Your task to perform on an android device: Open Yahoo.com Image 0: 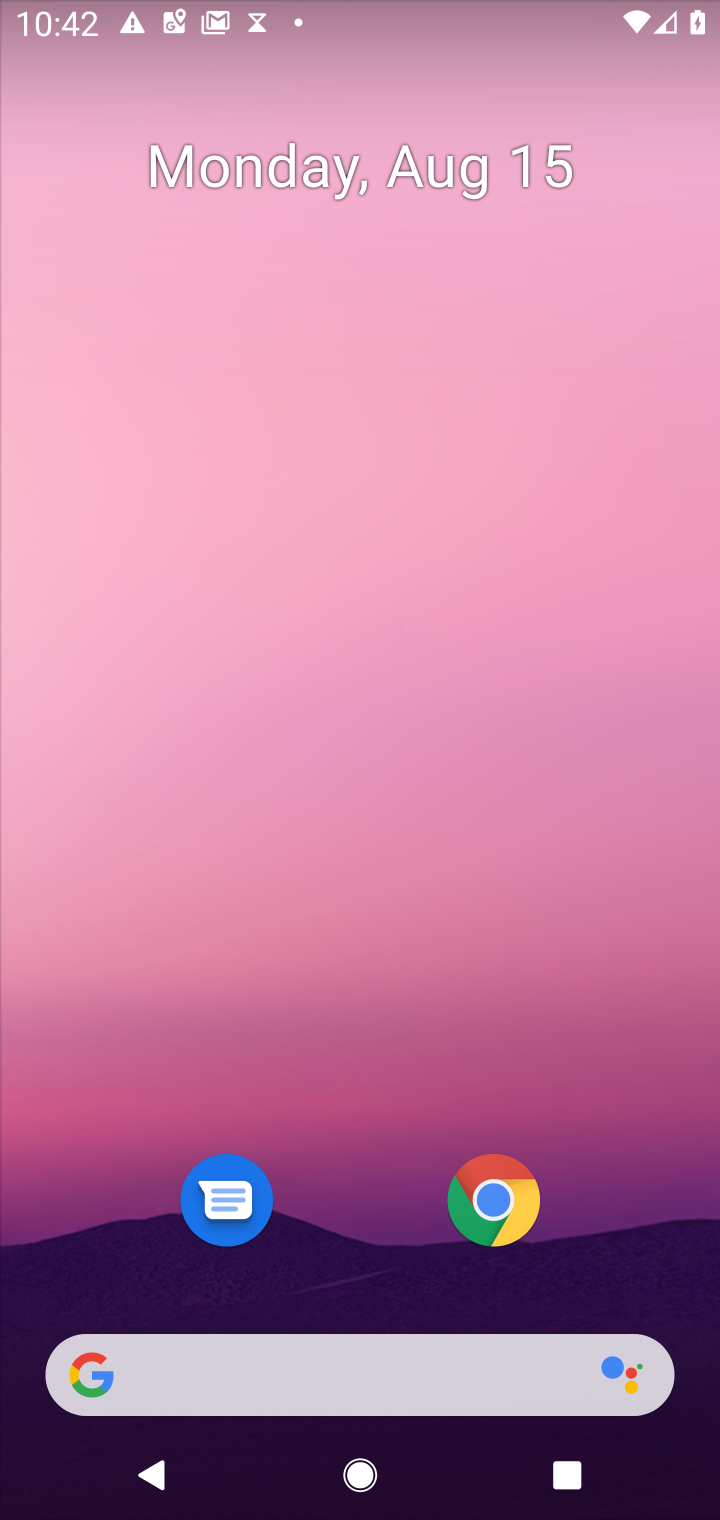
Step 0: click (470, 1207)
Your task to perform on an android device: Open Yahoo.com Image 1: 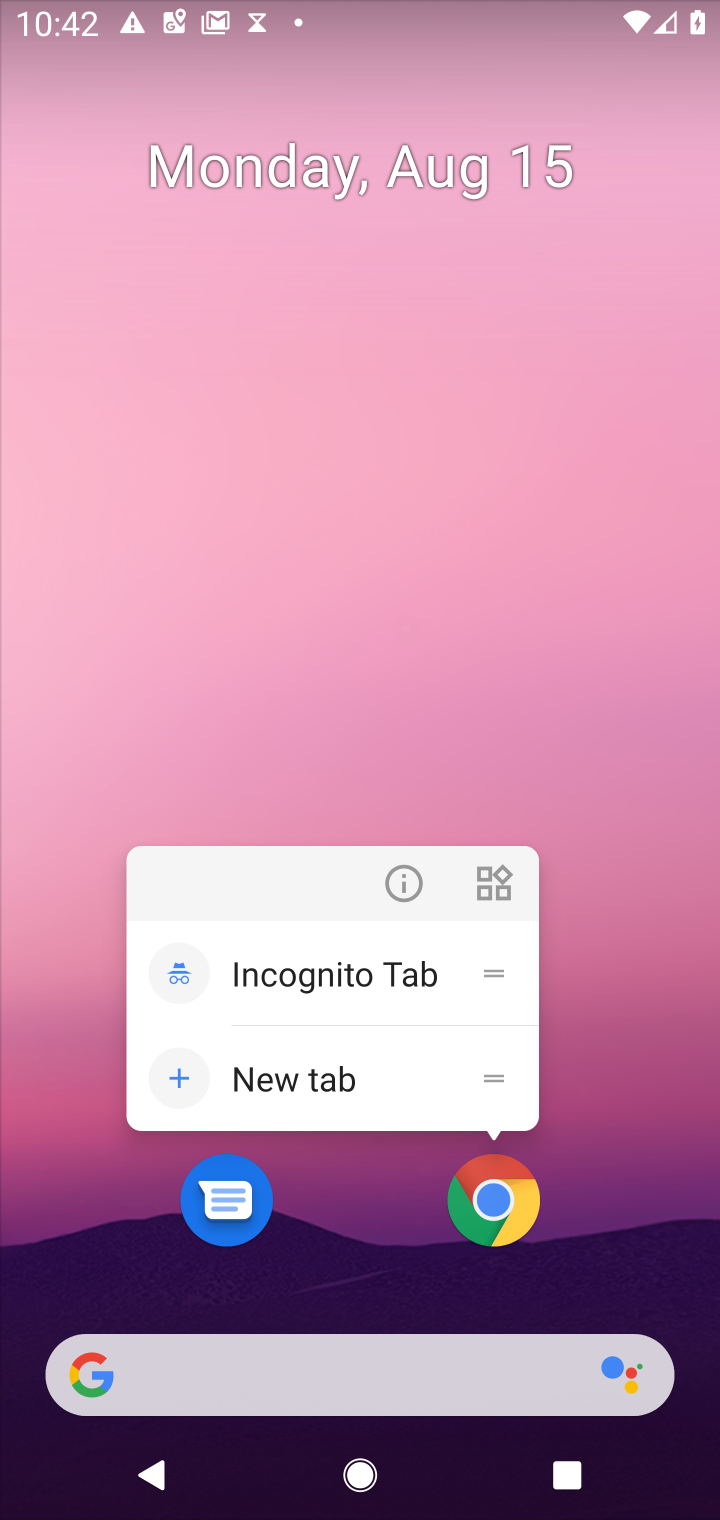
Step 1: click (479, 1217)
Your task to perform on an android device: Open Yahoo.com Image 2: 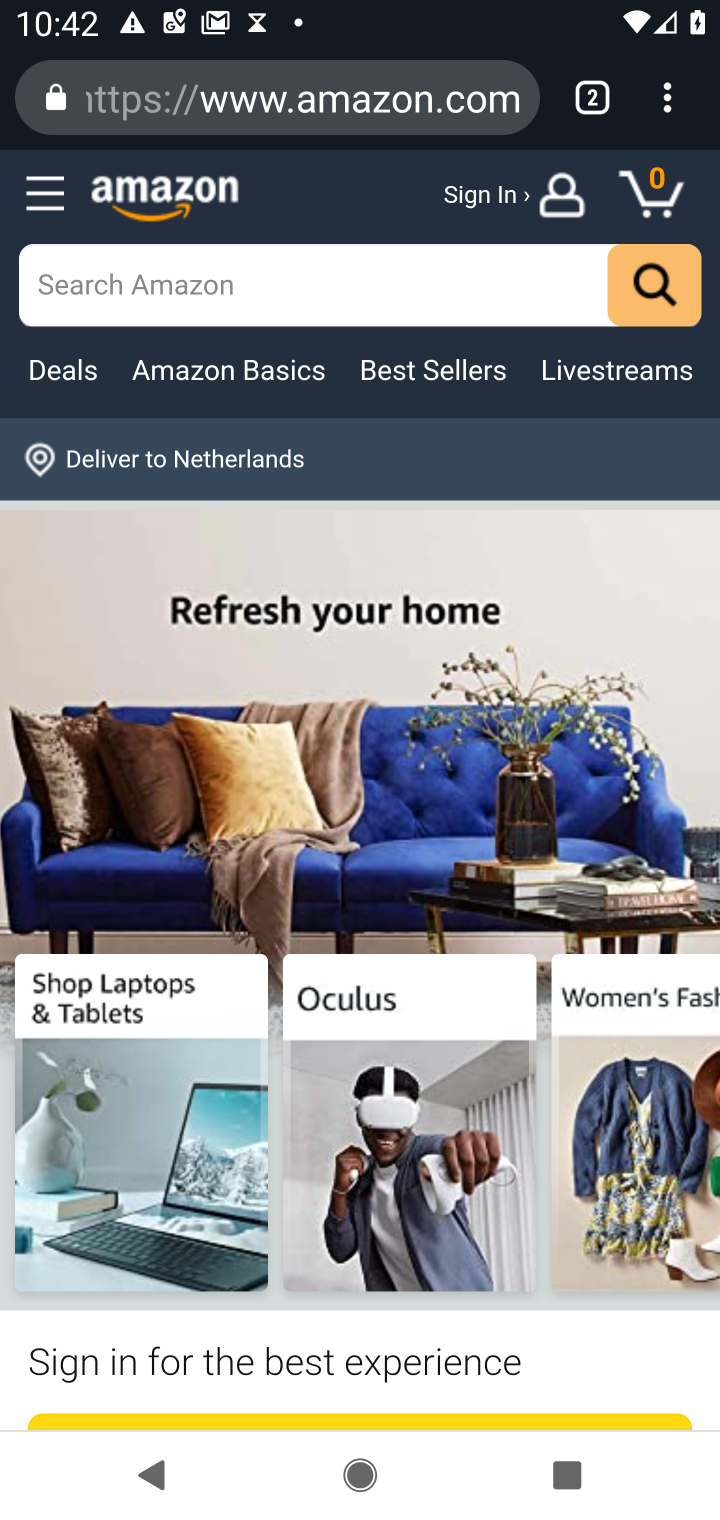
Step 2: click (591, 99)
Your task to perform on an android device: Open Yahoo.com Image 3: 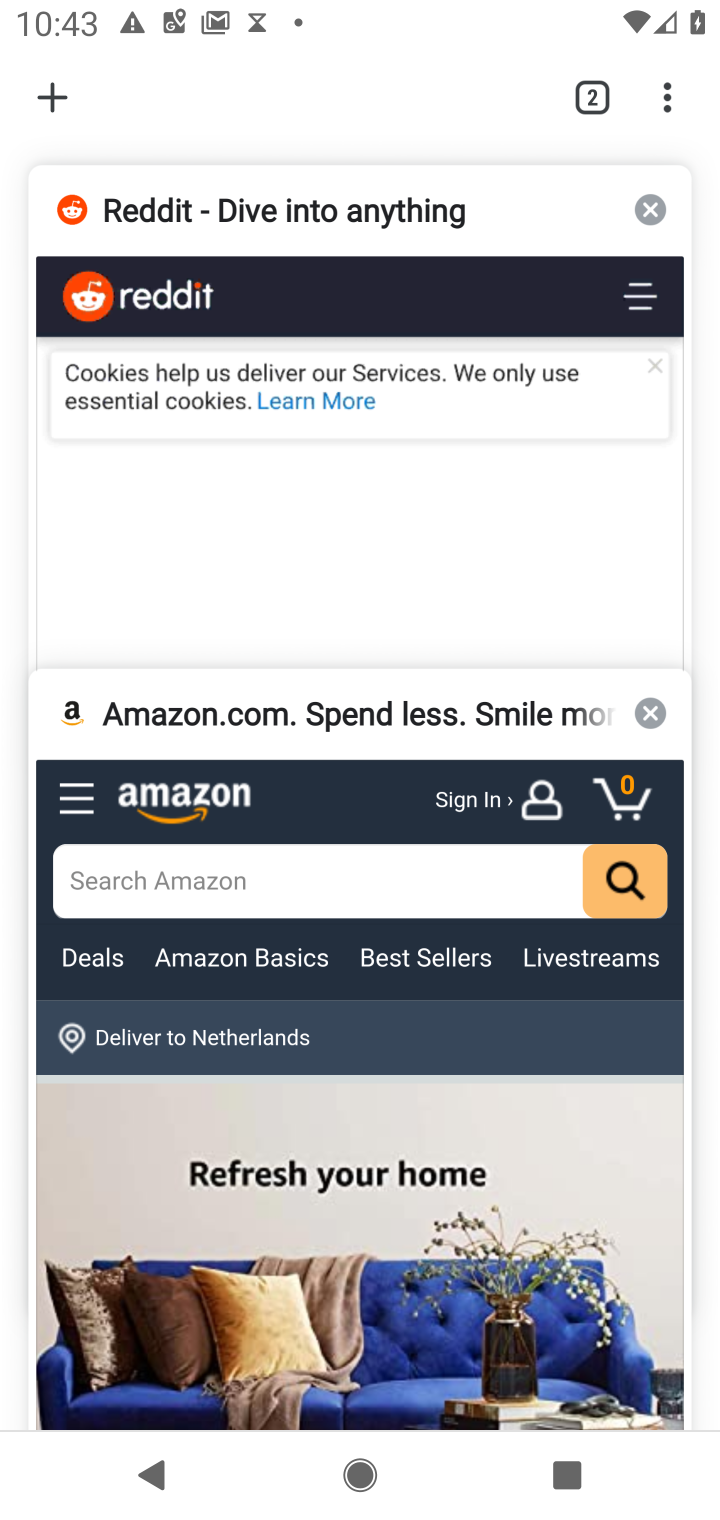
Step 3: click (49, 74)
Your task to perform on an android device: Open Yahoo.com Image 4: 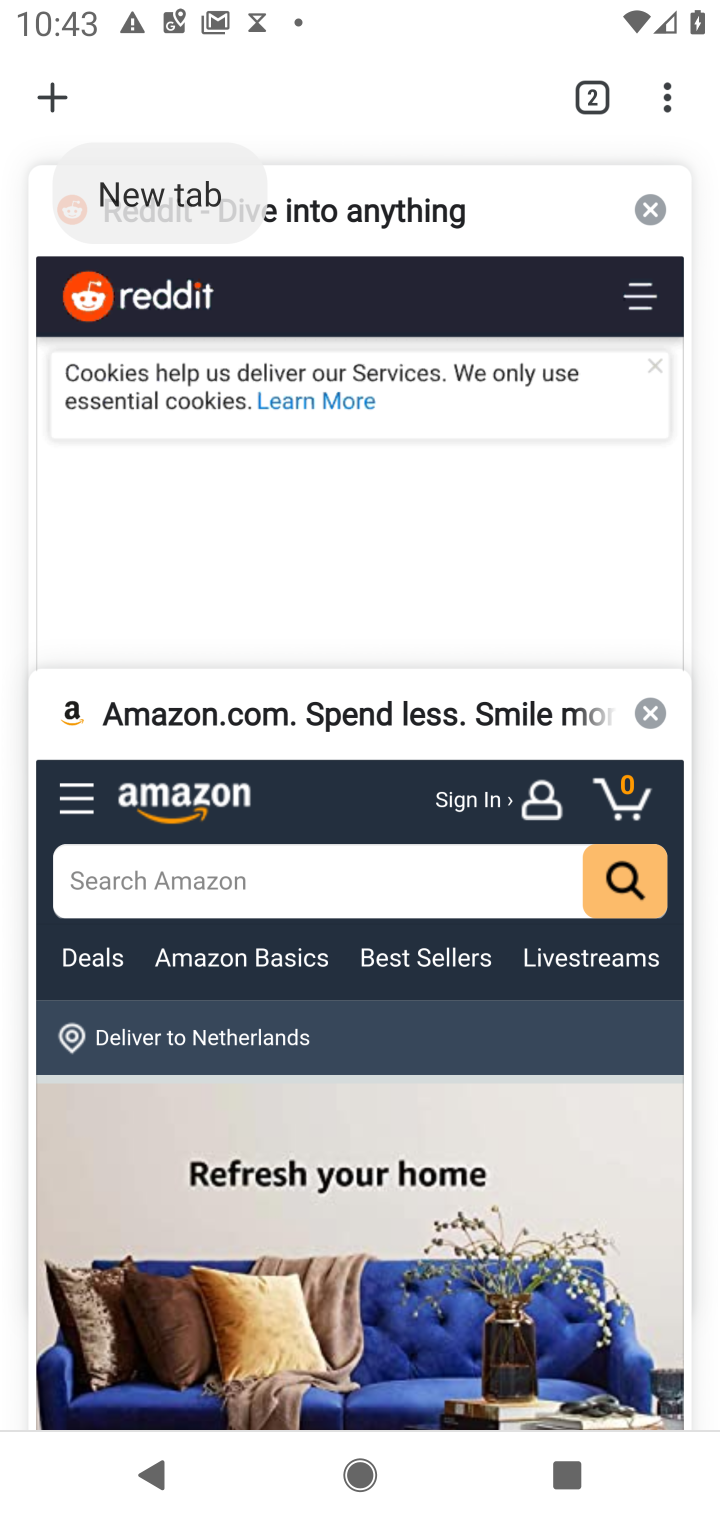
Step 4: click (55, 89)
Your task to perform on an android device: Open Yahoo.com Image 5: 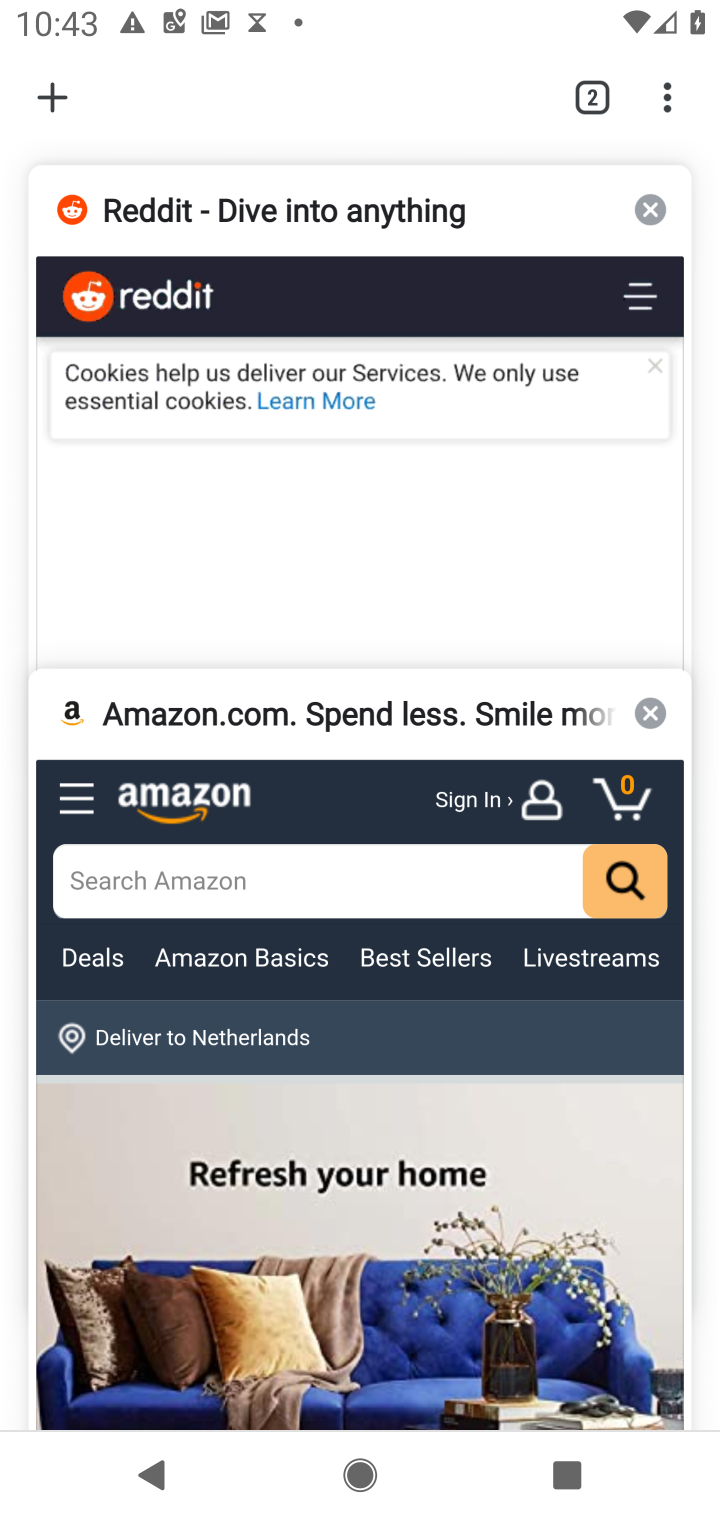
Step 5: click (58, 87)
Your task to perform on an android device: Open Yahoo.com Image 6: 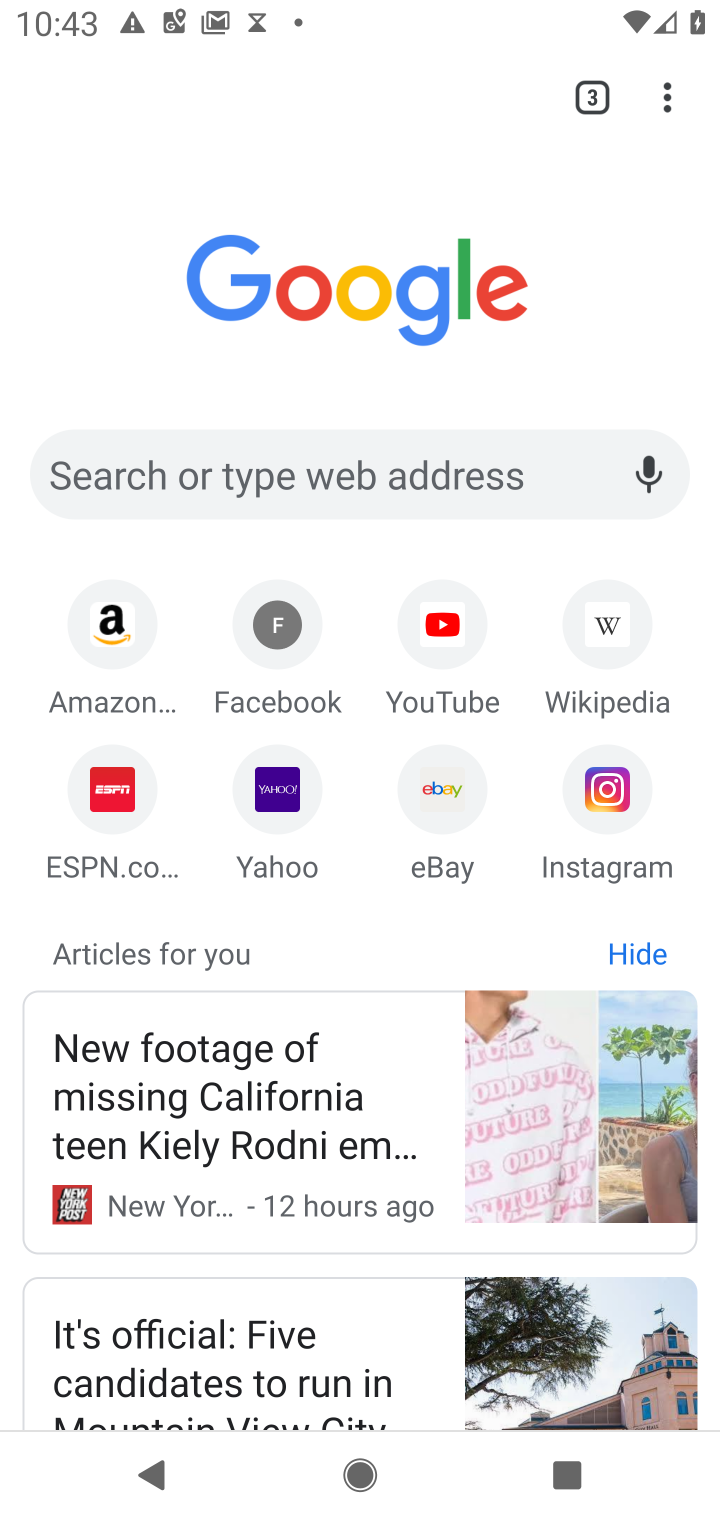
Step 6: click (282, 814)
Your task to perform on an android device: Open Yahoo.com Image 7: 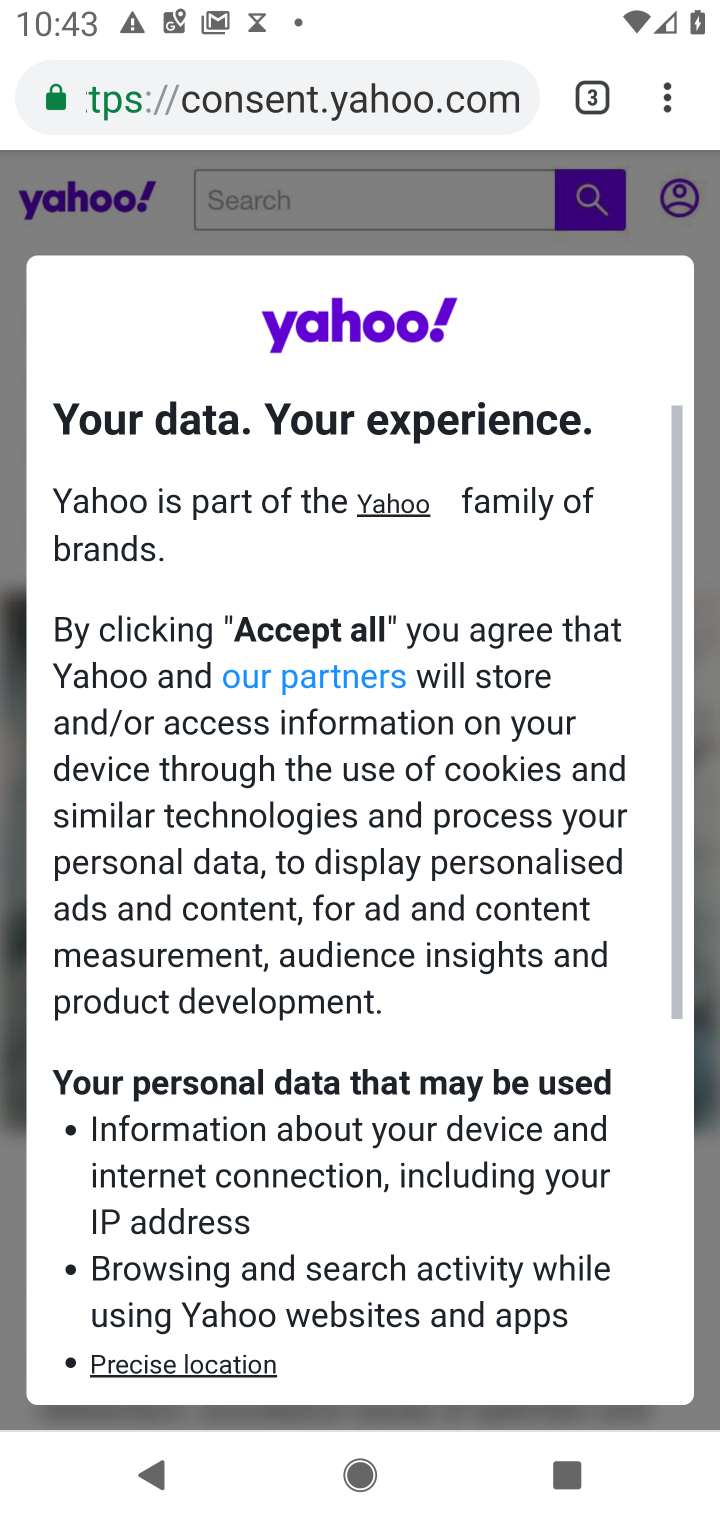
Step 7: task complete